Your task to perform on an android device: turn notification dots off Image 0: 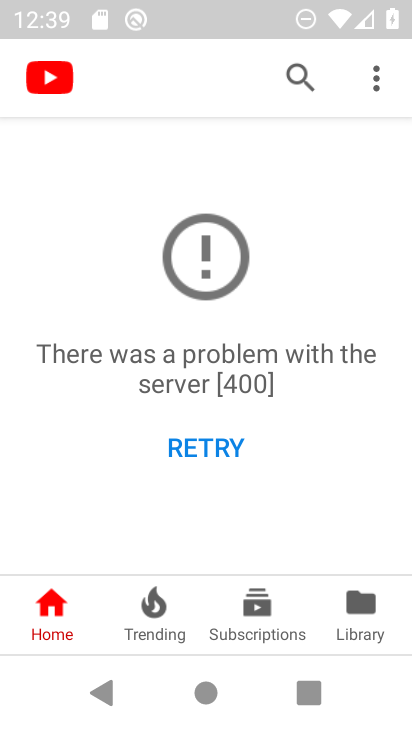
Step 0: press home button
Your task to perform on an android device: turn notification dots off Image 1: 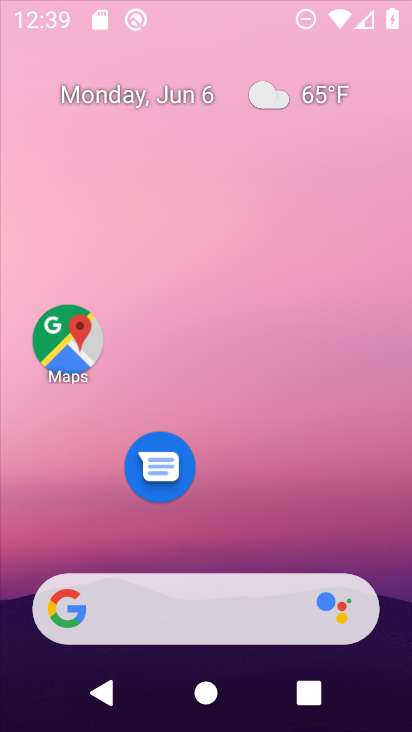
Step 1: drag from (301, 632) to (338, 42)
Your task to perform on an android device: turn notification dots off Image 2: 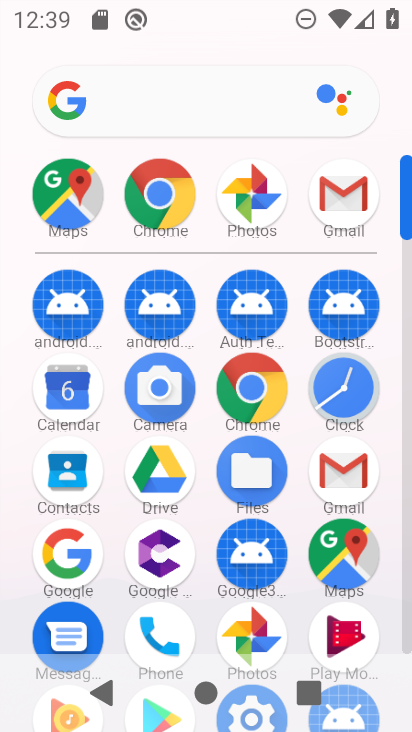
Step 2: click (398, 637)
Your task to perform on an android device: turn notification dots off Image 3: 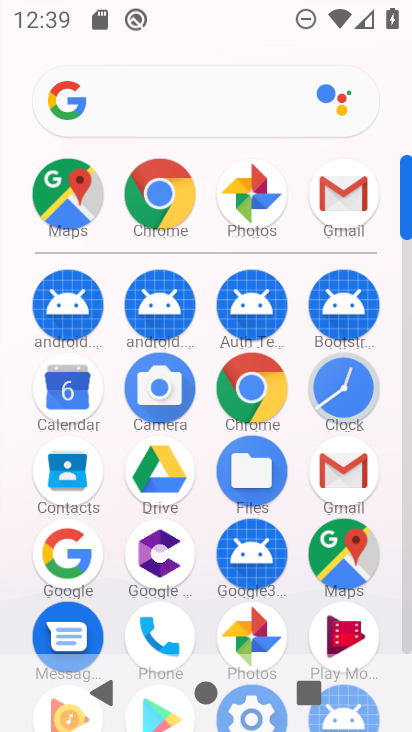
Step 3: click (400, 639)
Your task to perform on an android device: turn notification dots off Image 4: 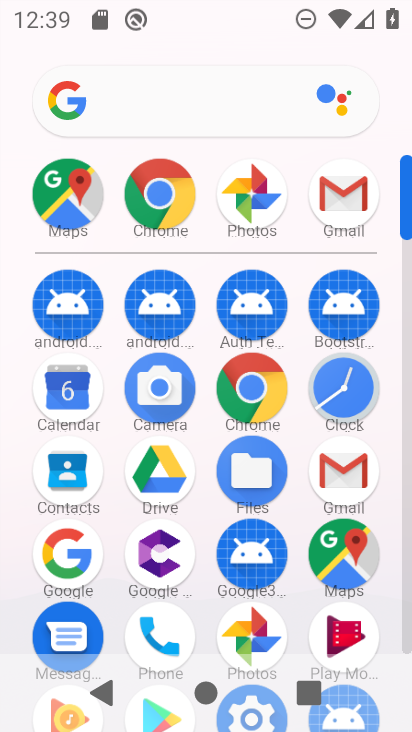
Step 4: click (407, 642)
Your task to perform on an android device: turn notification dots off Image 5: 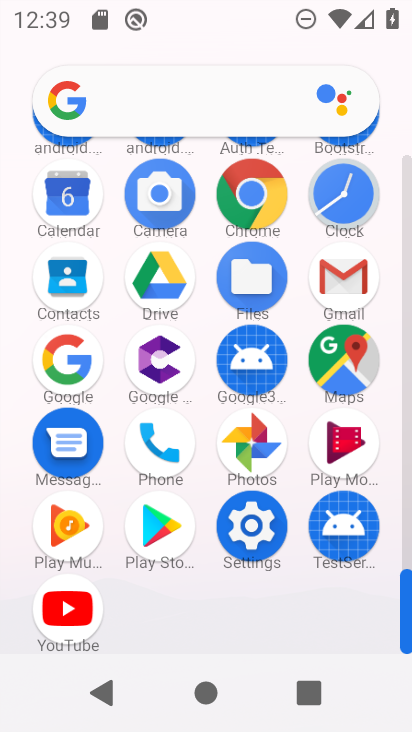
Step 5: click (269, 532)
Your task to perform on an android device: turn notification dots off Image 6: 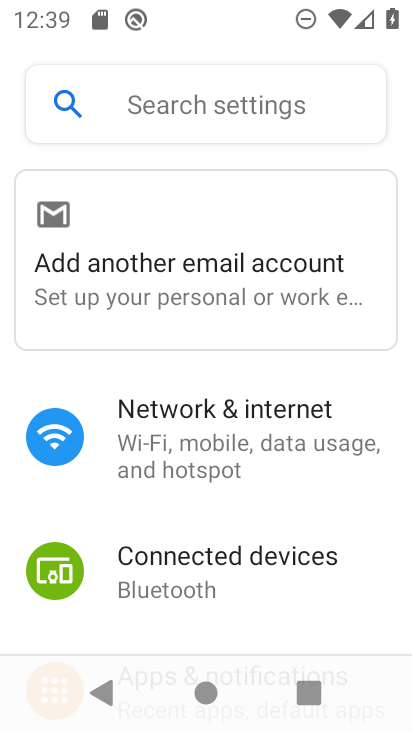
Step 6: drag from (273, 568) to (260, 281)
Your task to perform on an android device: turn notification dots off Image 7: 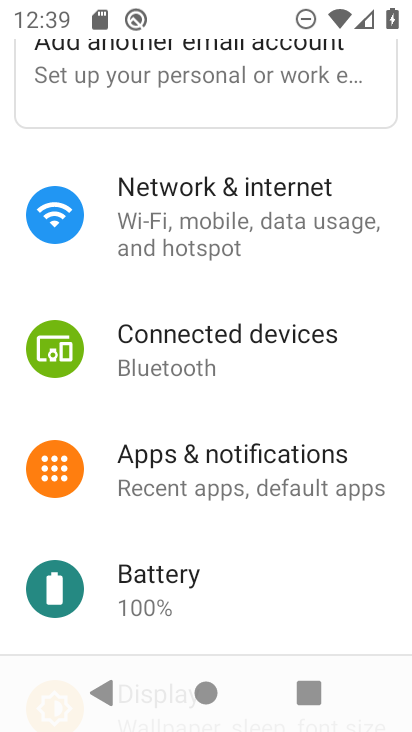
Step 7: click (287, 501)
Your task to perform on an android device: turn notification dots off Image 8: 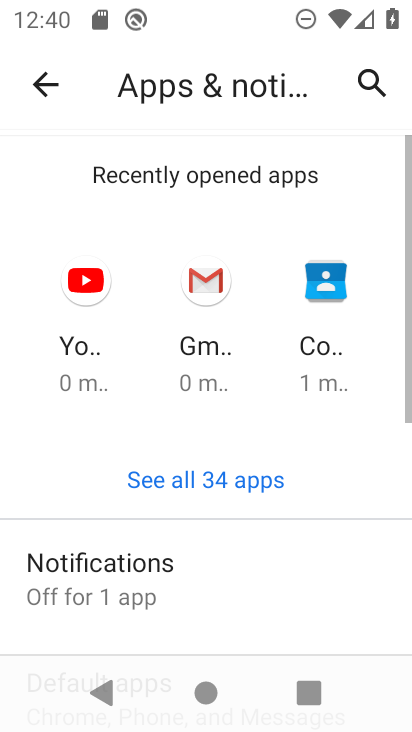
Step 8: drag from (290, 532) to (276, 357)
Your task to perform on an android device: turn notification dots off Image 9: 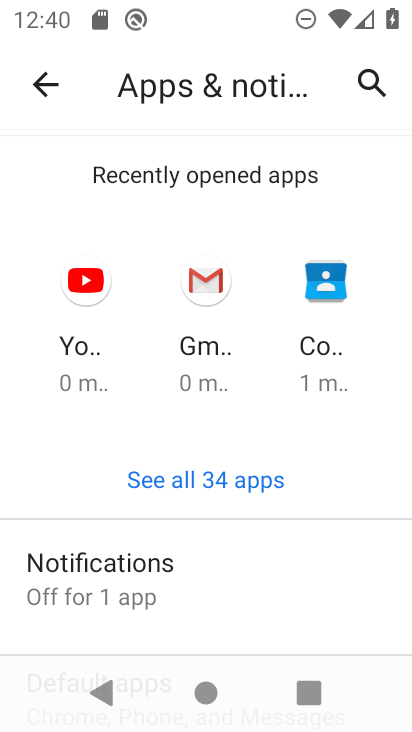
Step 9: drag from (311, 558) to (297, 236)
Your task to perform on an android device: turn notification dots off Image 10: 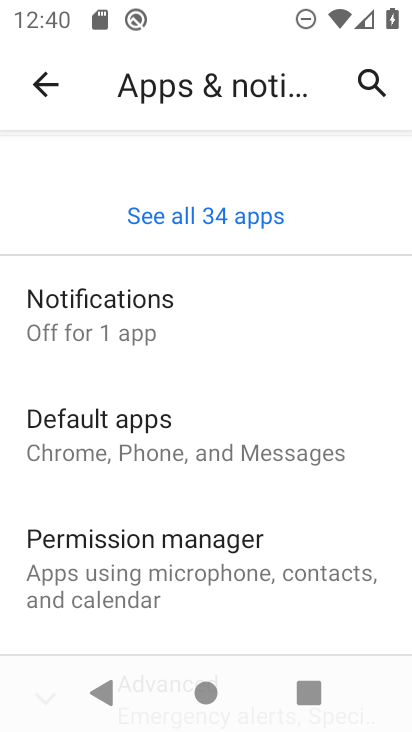
Step 10: drag from (322, 453) to (313, 383)
Your task to perform on an android device: turn notification dots off Image 11: 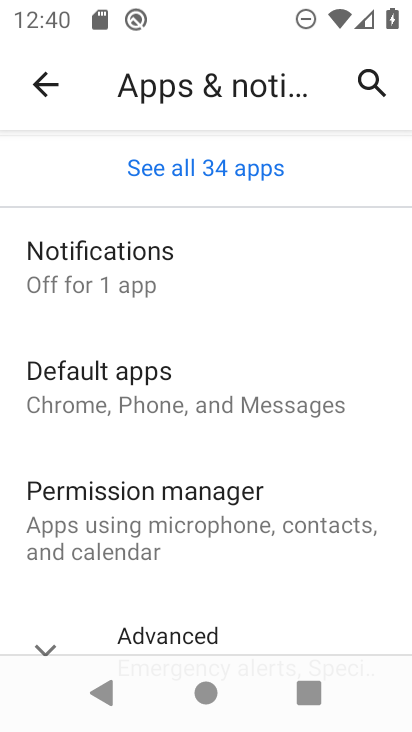
Step 11: click (128, 254)
Your task to perform on an android device: turn notification dots off Image 12: 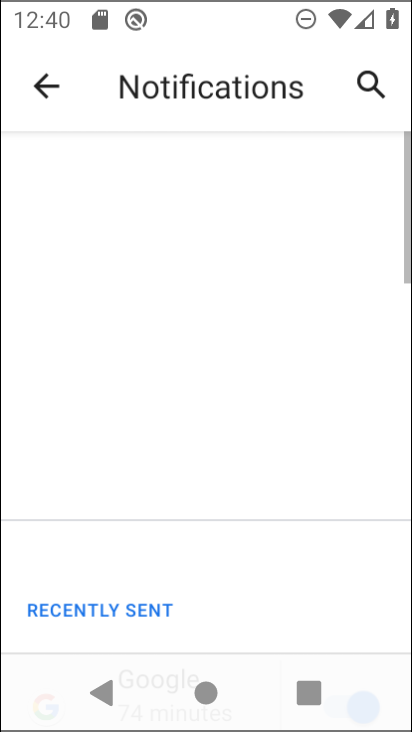
Step 12: drag from (280, 595) to (246, 119)
Your task to perform on an android device: turn notification dots off Image 13: 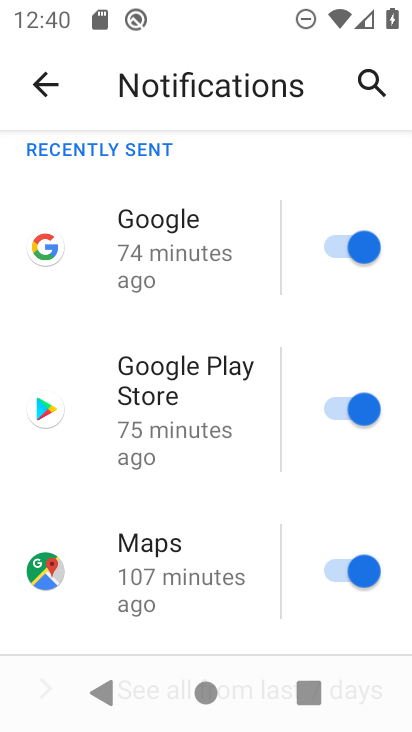
Step 13: drag from (305, 536) to (276, 184)
Your task to perform on an android device: turn notification dots off Image 14: 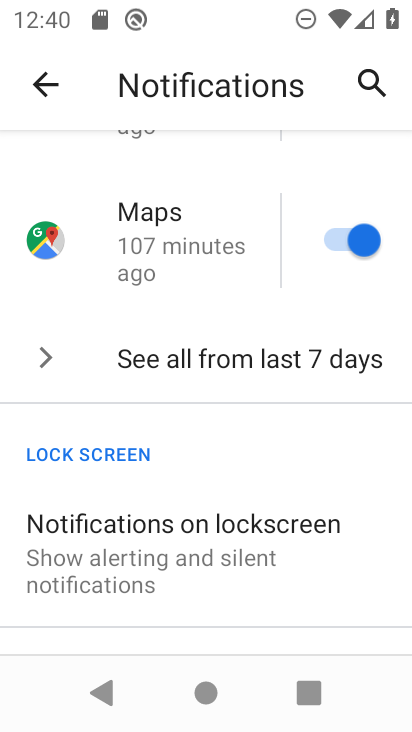
Step 14: drag from (247, 598) to (257, 243)
Your task to perform on an android device: turn notification dots off Image 15: 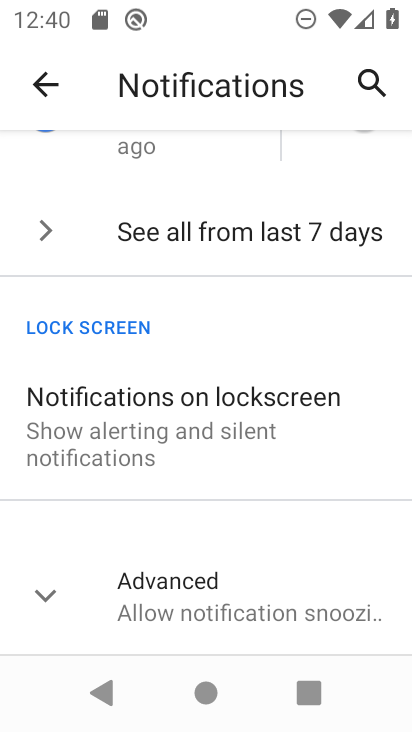
Step 15: click (227, 603)
Your task to perform on an android device: turn notification dots off Image 16: 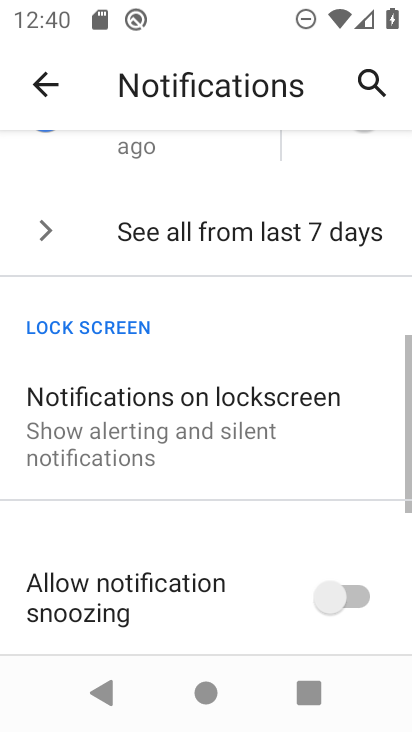
Step 16: drag from (301, 635) to (286, 193)
Your task to perform on an android device: turn notification dots off Image 17: 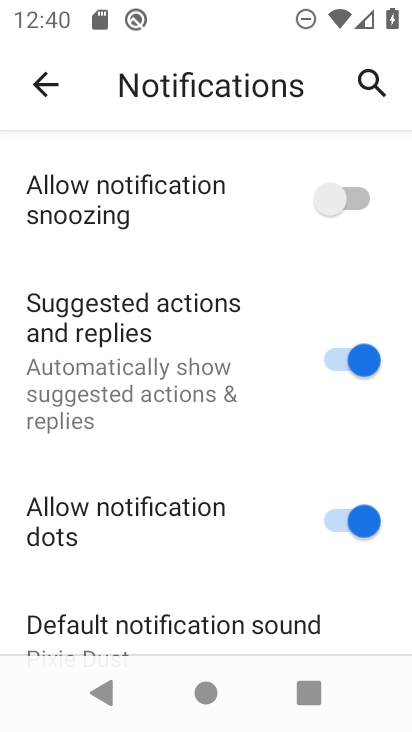
Step 17: click (239, 521)
Your task to perform on an android device: turn notification dots off Image 18: 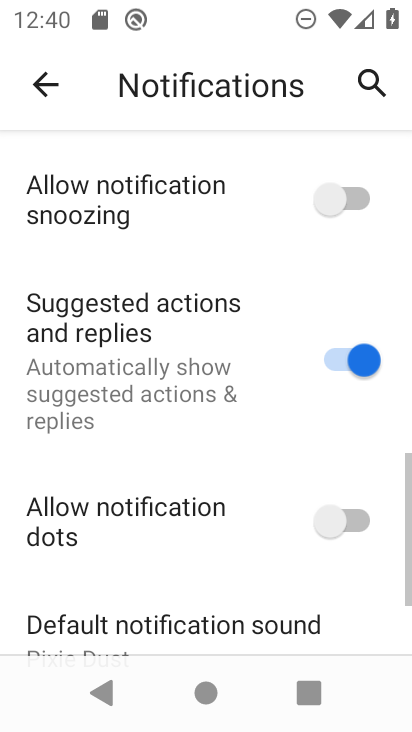
Step 18: task complete